Your task to perform on an android device: turn on javascript in the chrome app Image 0: 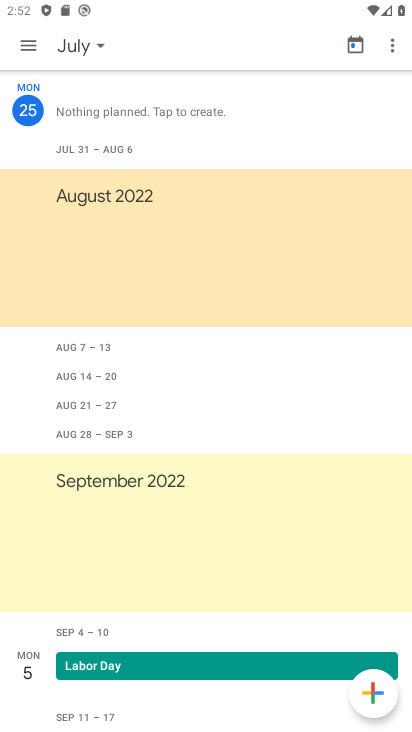
Step 0: press home button
Your task to perform on an android device: turn on javascript in the chrome app Image 1: 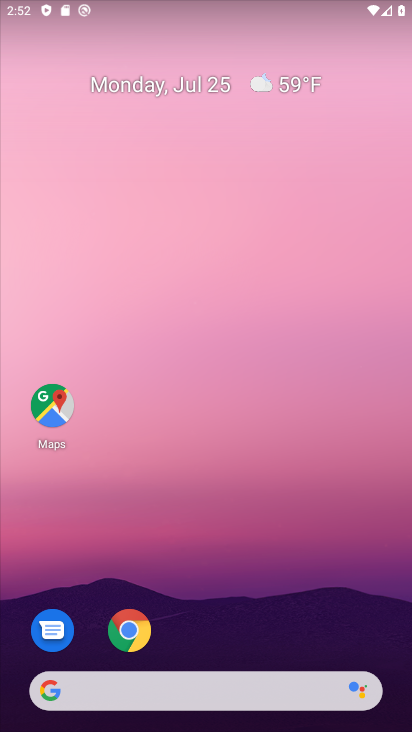
Step 1: click (116, 621)
Your task to perform on an android device: turn on javascript in the chrome app Image 2: 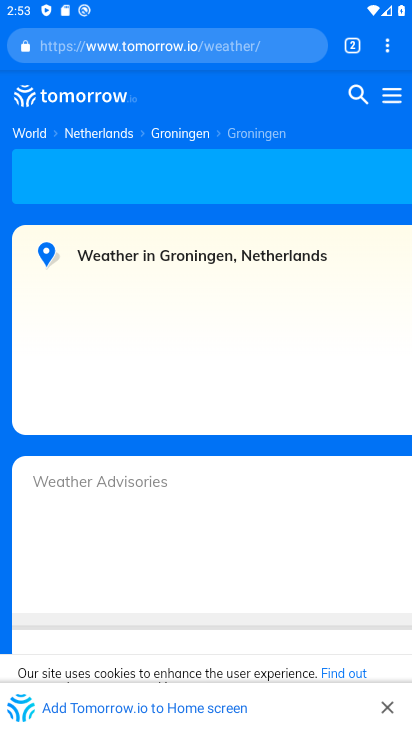
Step 2: click (390, 31)
Your task to perform on an android device: turn on javascript in the chrome app Image 3: 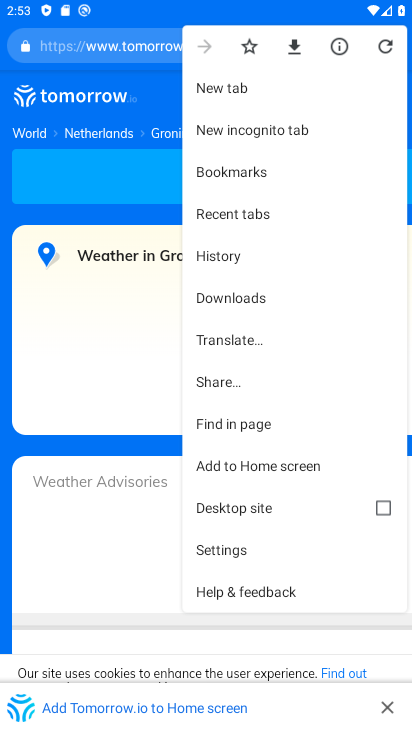
Step 3: click (240, 544)
Your task to perform on an android device: turn on javascript in the chrome app Image 4: 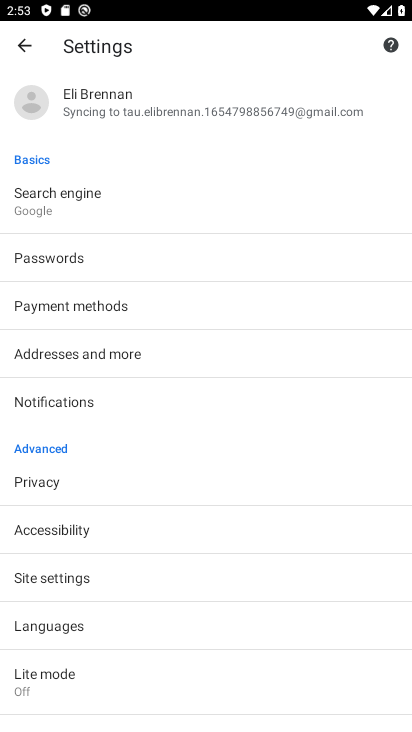
Step 4: click (93, 579)
Your task to perform on an android device: turn on javascript in the chrome app Image 5: 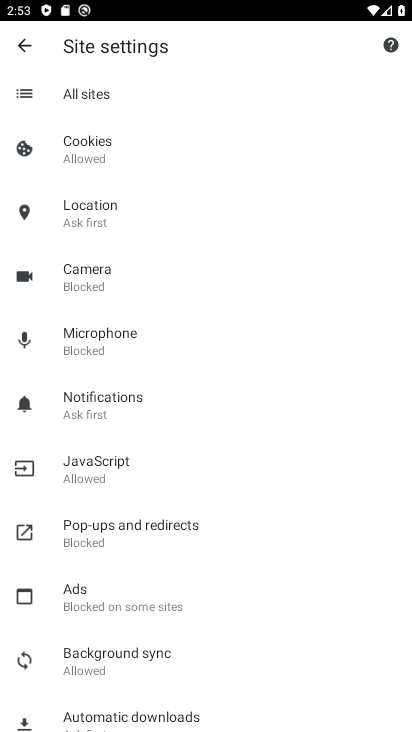
Step 5: click (121, 477)
Your task to perform on an android device: turn on javascript in the chrome app Image 6: 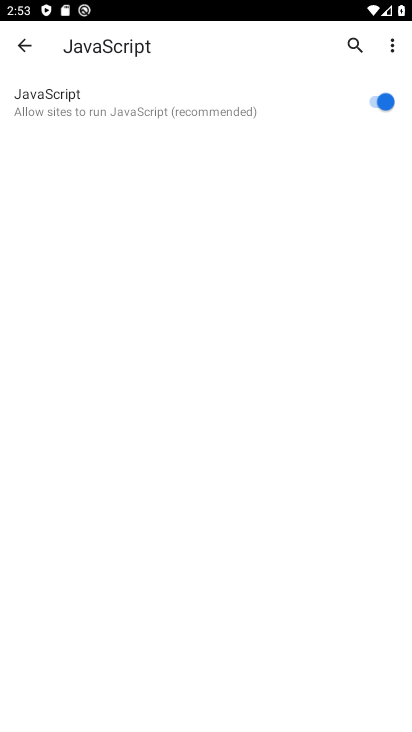
Step 6: task complete